Your task to perform on an android device: Go to eBay Image 0: 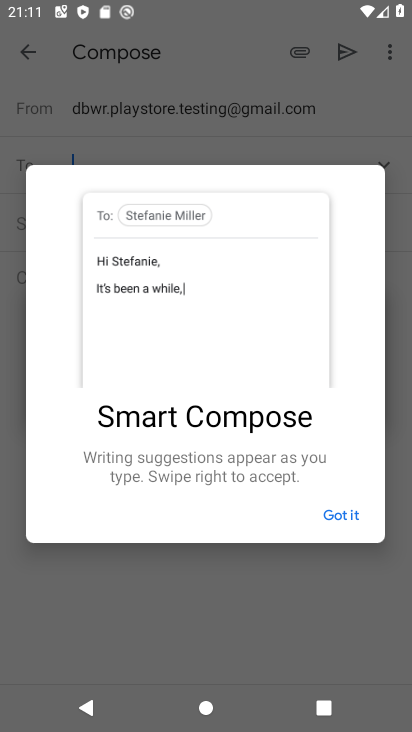
Step 0: press home button
Your task to perform on an android device: Go to eBay Image 1: 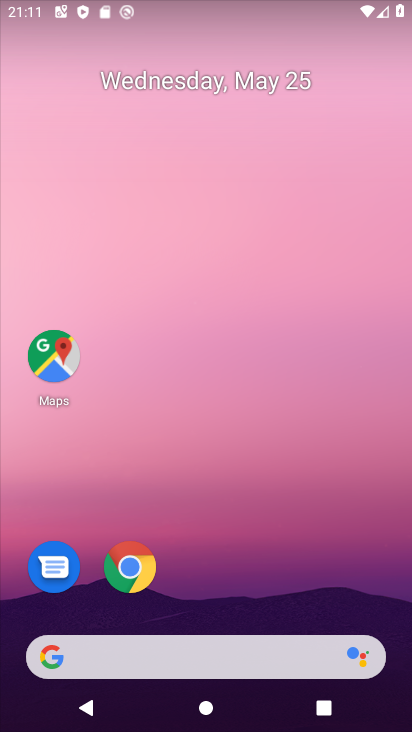
Step 1: click (267, 662)
Your task to perform on an android device: Go to eBay Image 2: 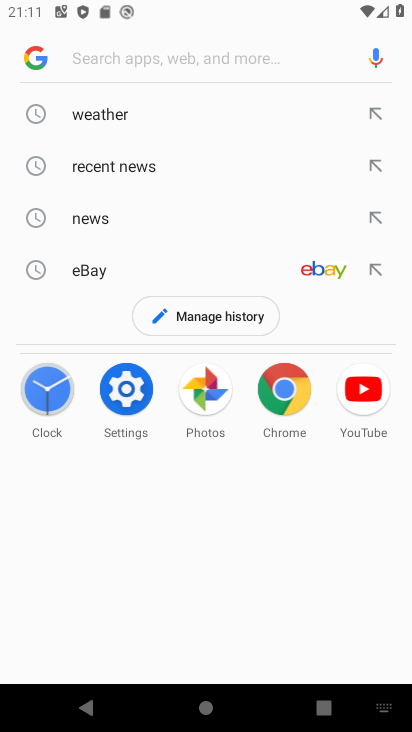
Step 2: click (77, 273)
Your task to perform on an android device: Go to eBay Image 3: 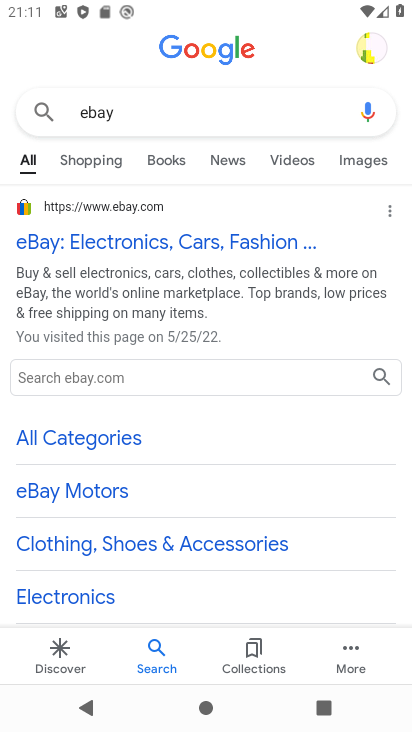
Step 3: click (42, 242)
Your task to perform on an android device: Go to eBay Image 4: 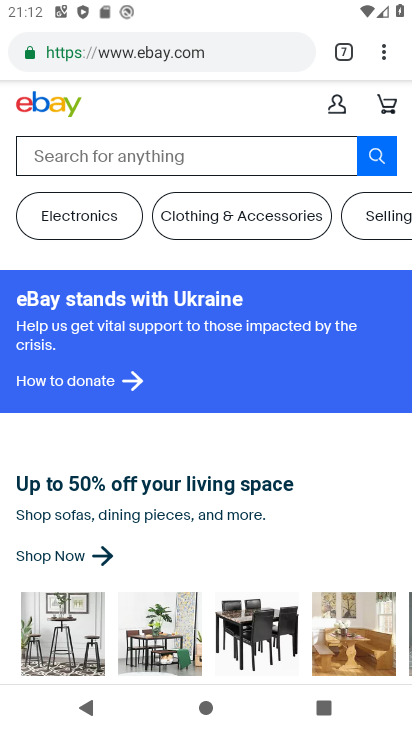
Step 4: task complete